Your task to perform on an android device: move an email to a new category in the gmail app Image 0: 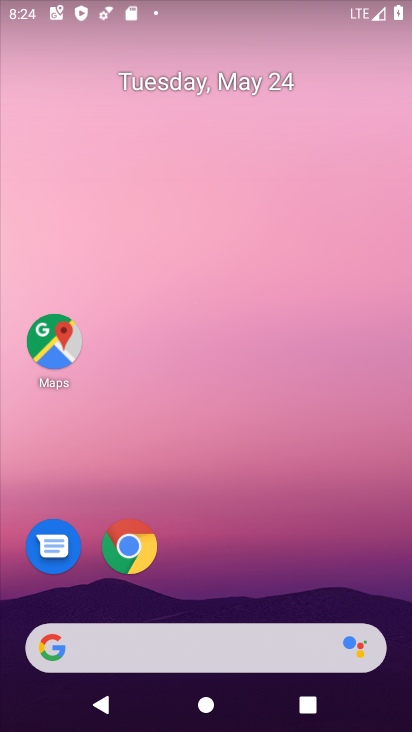
Step 0: drag from (252, 541) to (295, 1)
Your task to perform on an android device: move an email to a new category in the gmail app Image 1: 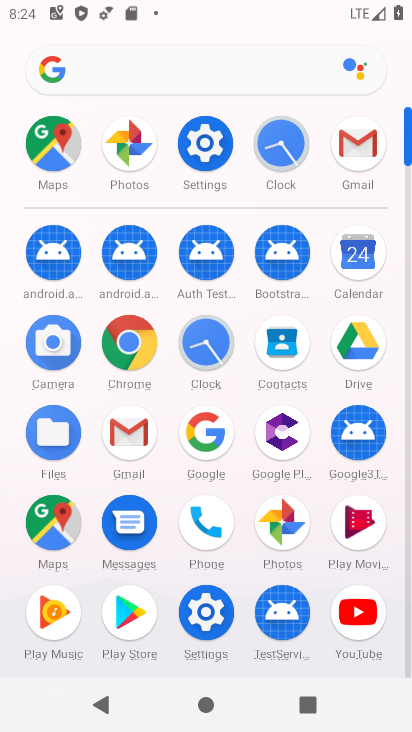
Step 1: click (362, 143)
Your task to perform on an android device: move an email to a new category in the gmail app Image 2: 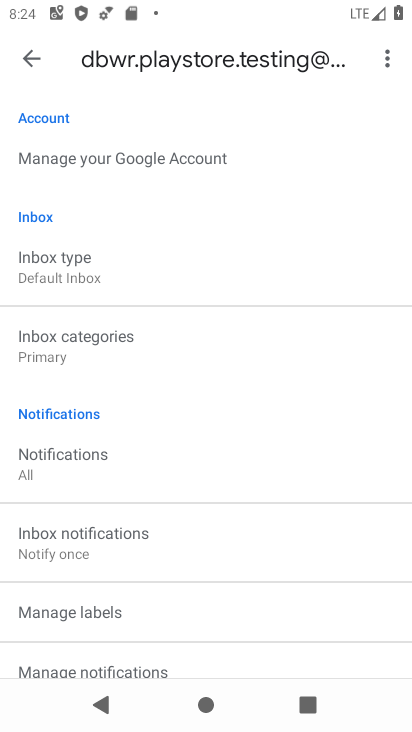
Step 2: click (36, 60)
Your task to perform on an android device: move an email to a new category in the gmail app Image 3: 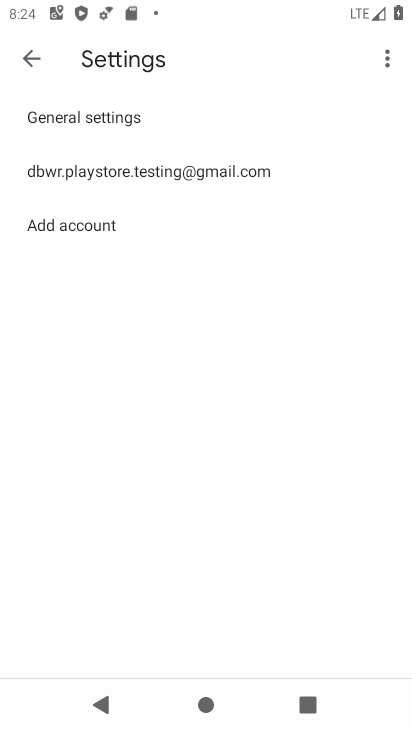
Step 3: click (36, 60)
Your task to perform on an android device: move an email to a new category in the gmail app Image 4: 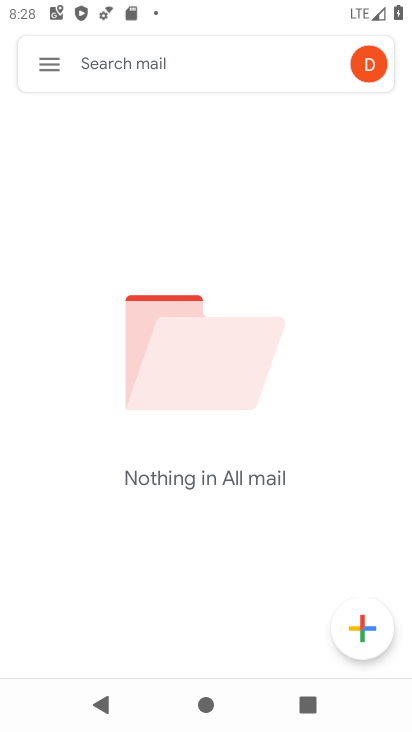
Step 4: task complete